Your task to perform on an android device: toggle show notifications on the lock screen Image 0: 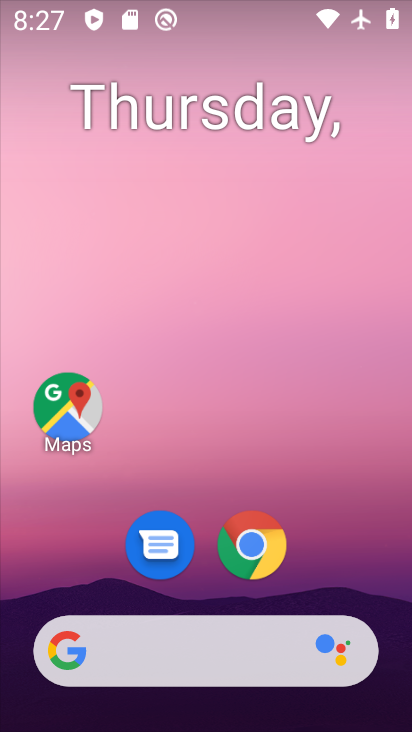
Step 0: drag from (274, 403) to (287, 312)
Your task to perform on an android device: toggle show notifications on the lock screen Image 1: 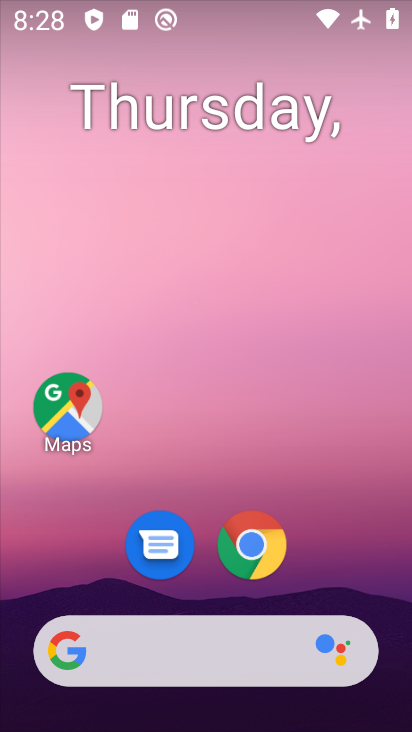
Step 1: drag from (266, 605) to (310, 207)
Your task to perform on an android device: toggle show notifications on the lock screen Image 2: 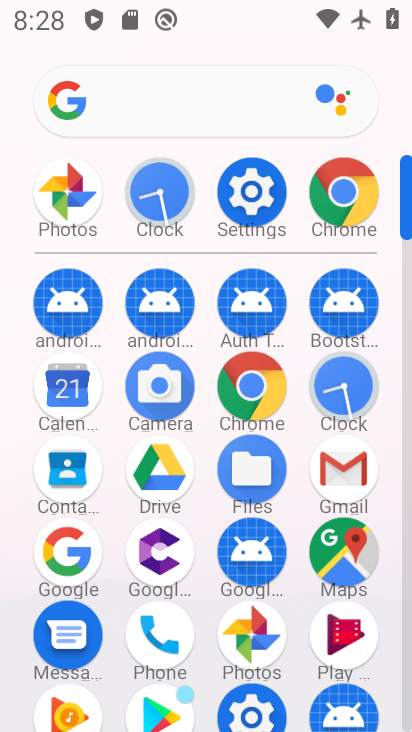
Step 2: click (264, 192)
Your task to perform on an android device: toggle show notifications on the lock screen Image 3: 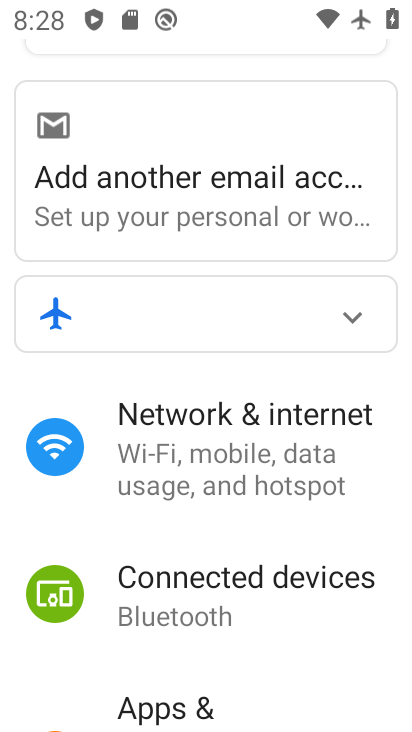
Step 3: click (178, 709)
Your task to perform on an android device: toggle show notifications on the lock screen Image 4: 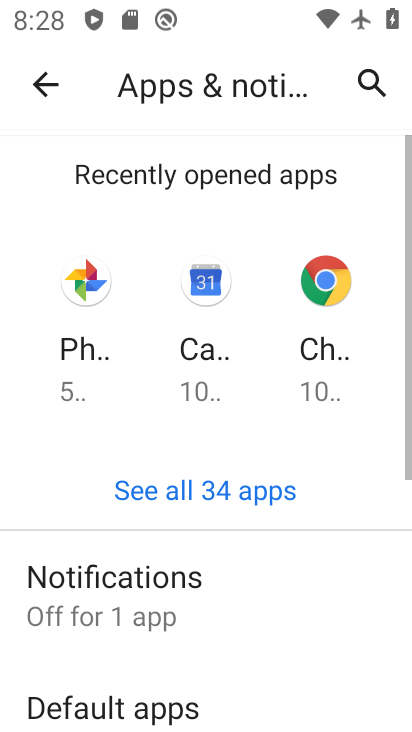
Step 4: click (185, 595)
Your task to perform on an android device: toggle show notifications on the lock screen Image 5: 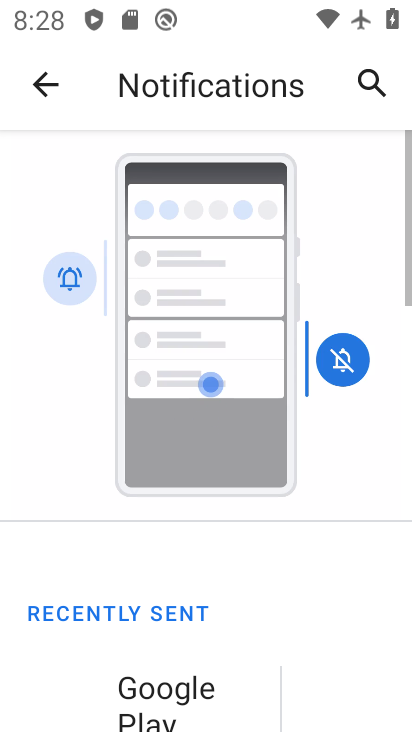
Step 5: drag from (202, 658) to (299, 119)
Your task to perform on an android device: toggle show notifications on the lock screen Image 6: 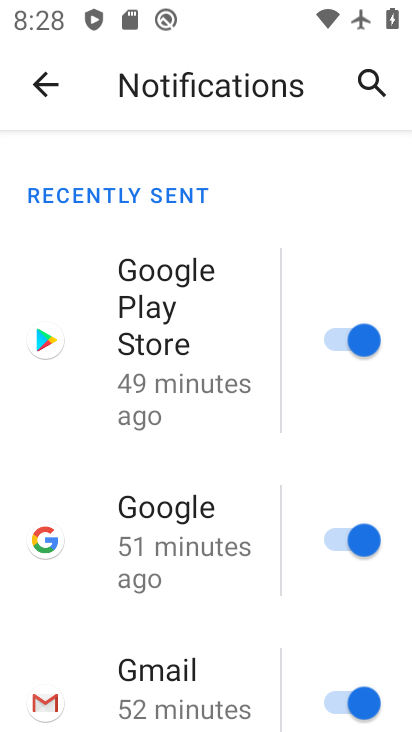
Step 6: drag from (223, 580) to (311, 96)
Your task to perform on an android device: toggle show notifications on the lock screen Image 7: 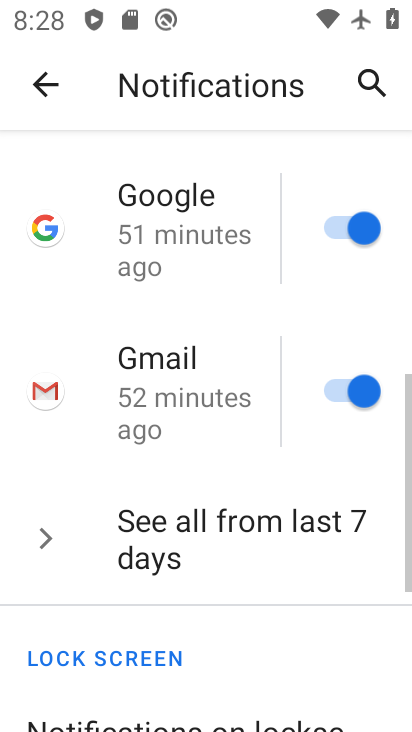
Step 7: drag from (185, 639) to (248, 214)
Your task to perform on an android device: toggle show notifications on the lock screen Image 8: 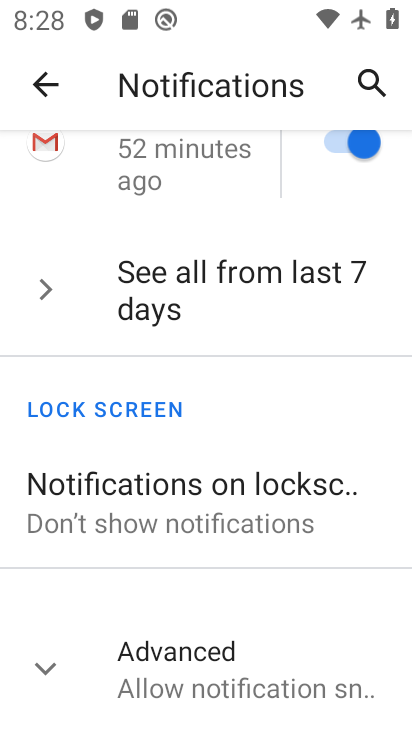
Step 8: click (194, 497)
Your task to perform on an android device: toggle show notifications on the lock screen Image 9: 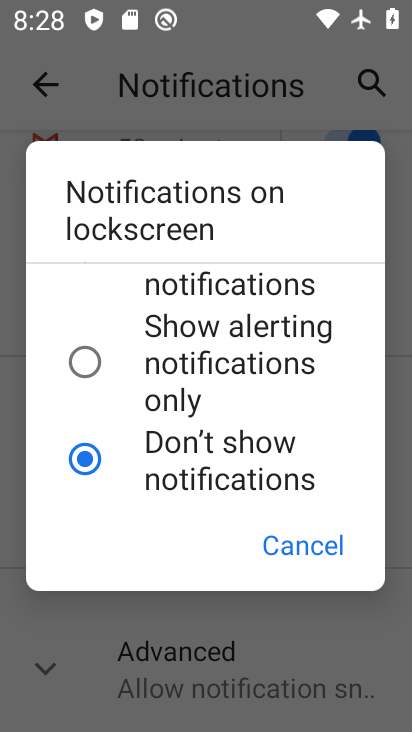
Step 9: drag from (198, 283) to (201, 540)
Your task to perform on an android device: toggle show notifications on the lock screen Image 10: 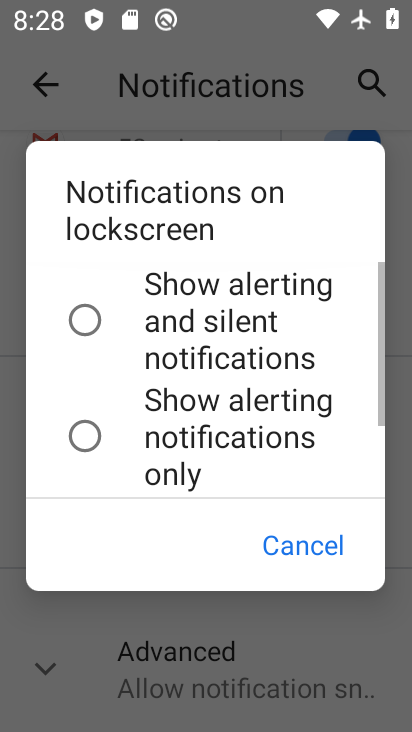
Step 10: click (86, 300)
Your task to perform on an android device: toggle show notifications on the lock screen Image 11: 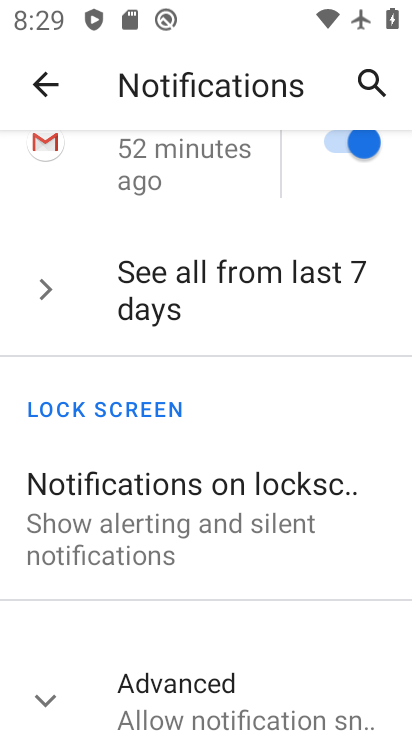
Step 11: click (183, 492)
Your task to perform on an android device: toggle show notifications on the lock screen Image 12: 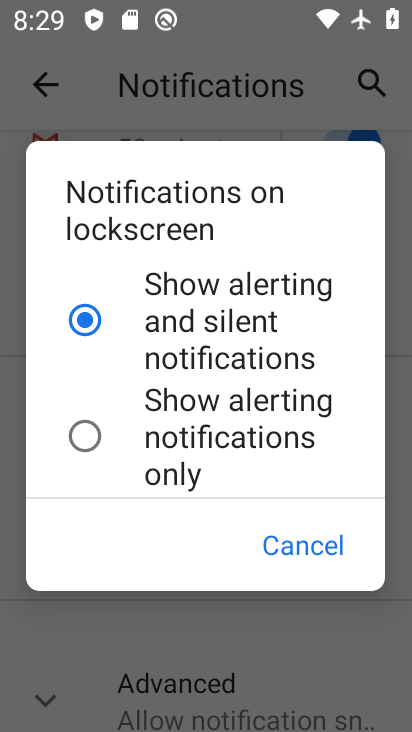
Step 12: task complete